Your task to perform on an android device: manage bookmarks in the chrome app Image 0: 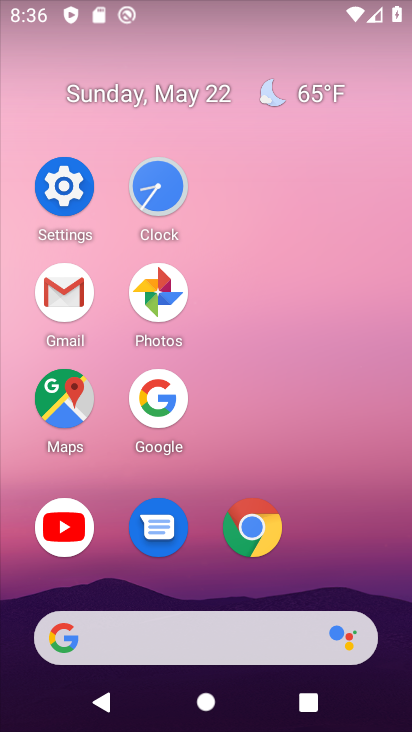
Step 0: click (239, 495)
Your task to perform on an android device: manage bookmarks in the chrome app Image 1: 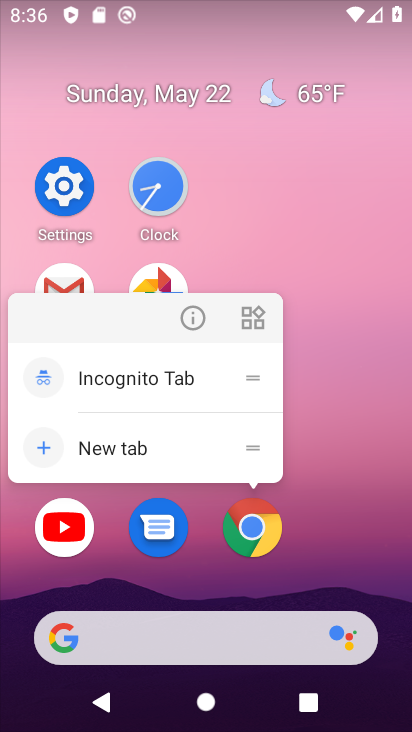
Step 1: click (246, 522)
Your task to perform on an android device: manage bookmarks in the chrome app Image 2: 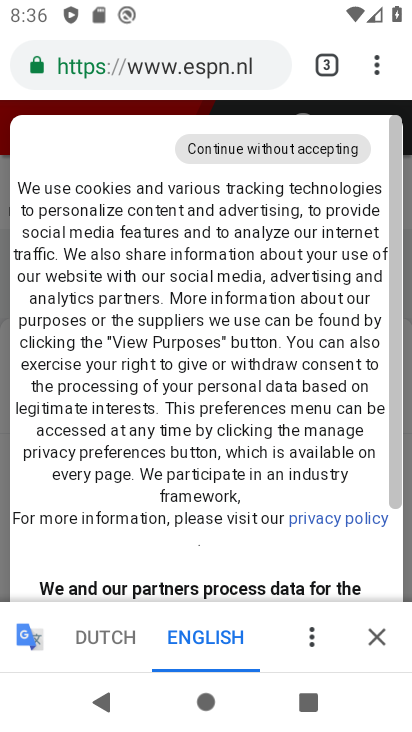
Step 2: click (379, 65)
Your task to perform on an android device: manage bookmarks in the chrome app Image 3: 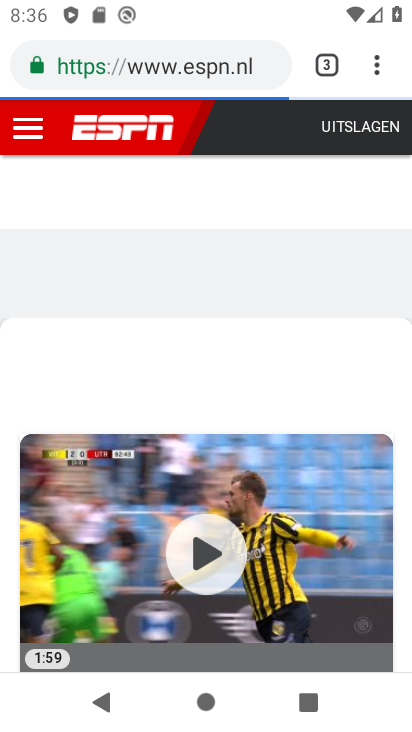
Step 3: click (382, 71)
Your task to perform on an android device: manage bookmarks in the chrome app Image 4: 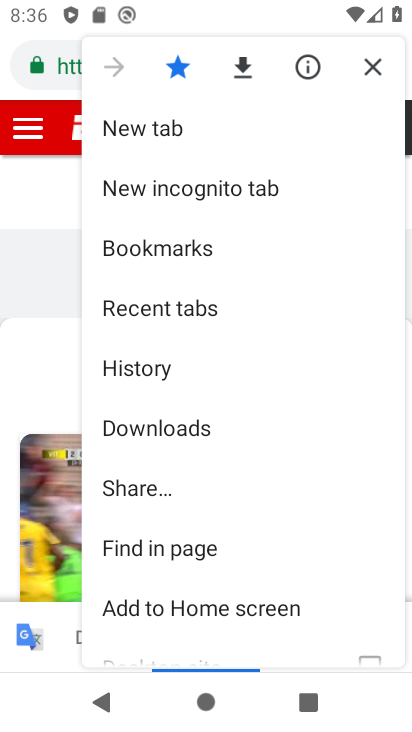
Step 4: click (196, 262)
Your task to perform on an android device: manage bookmarks in the chrome app Image 5: 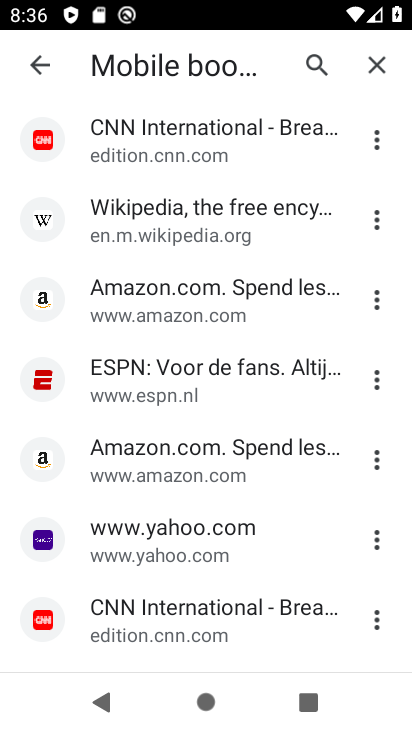
Step 5: click (376, 147)
Your task to perform on an android device: manage bookmarks in the chrome app Image 6: 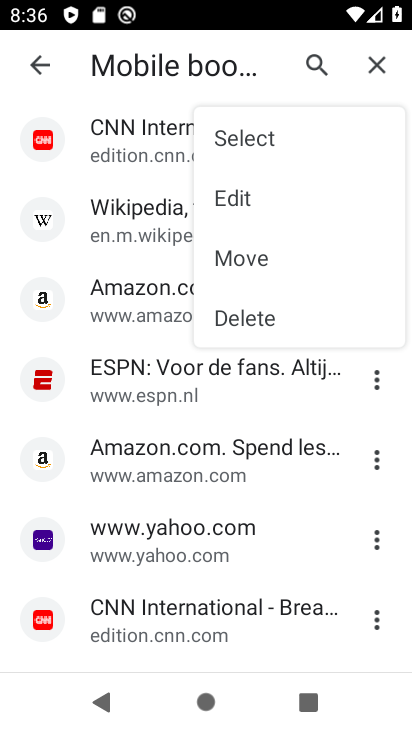
Step 6: click (271, 307)
Your task to perform on an android device: manage bookmarks in the chrome app Image 7: 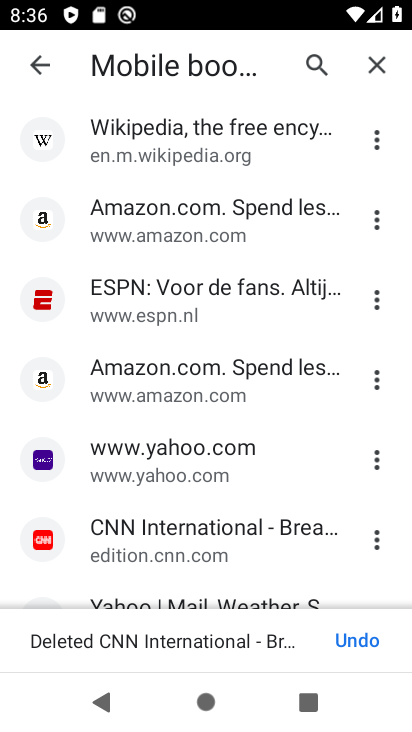
Step 7: task complete